Your task to perform on an android device: find snoozed emails in the gmail app Image 0: 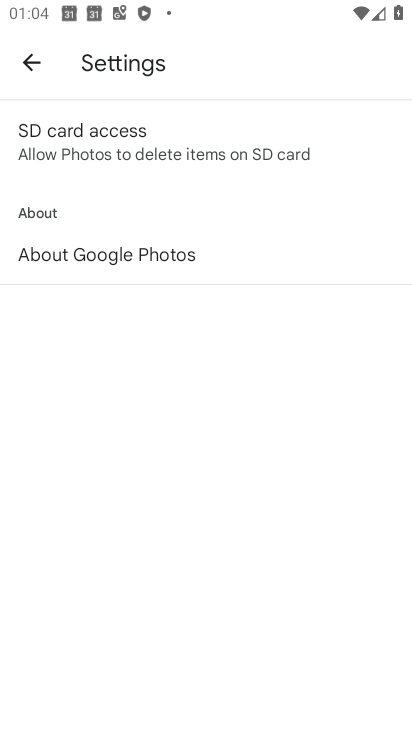
Step 0: press home button
Your task to perform on an android device: find snoozed emails in the gmail app Image 1: 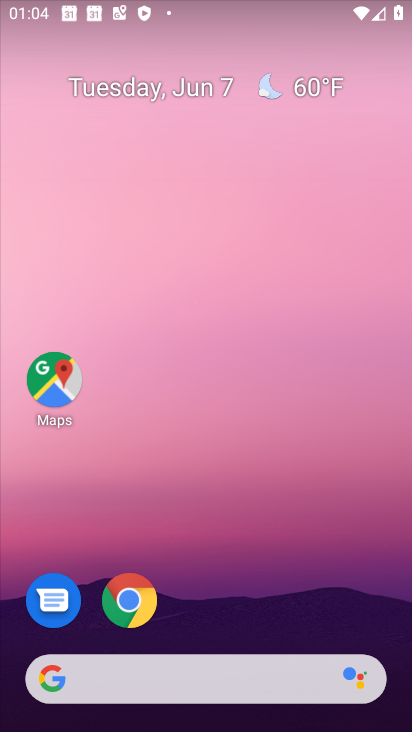
Step 1: drag from (241, 708) to (241, 153)
Your task to perform on an android device: find snoozed emails in the gmail app Image 2: 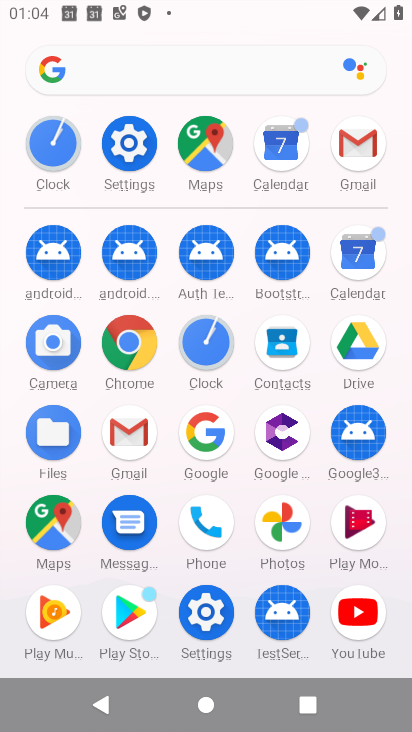
Step 2: click (120, 434)
Your task to perform on an android device: find snoozed emails in the gmail app Image 3: 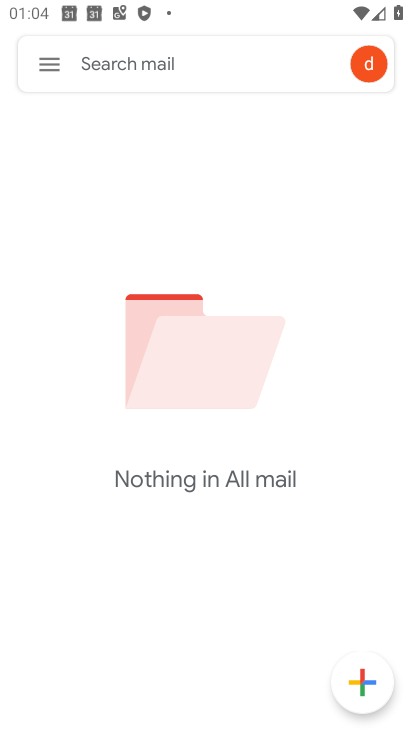
Step 3: click (46, 59)
Your task to perform on an android device: find snoozed emails in the gmail app Image 4: 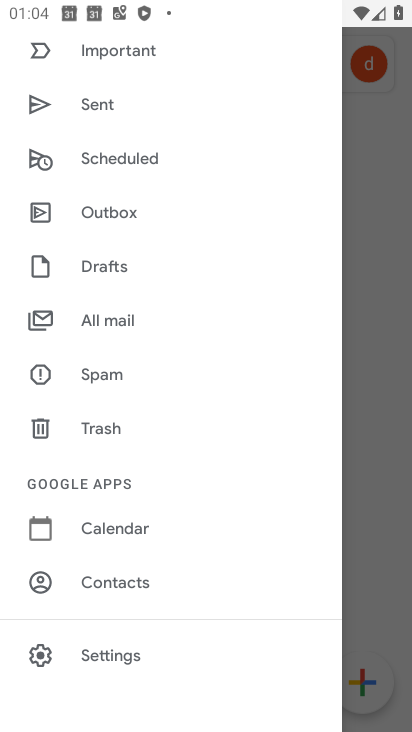
Step 4: drag from (194, 121) to (194, 458)
Your task to perform on an android device: find snoozed emails in the gmail app Image 5: 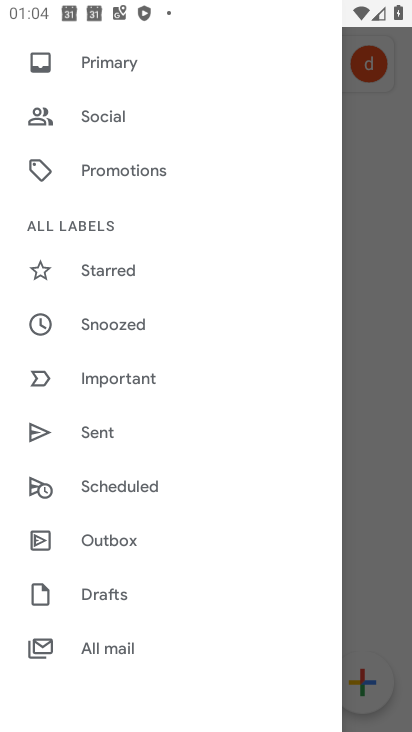
Step 5: click (110, 323)
Your task to perform on an android device: find snoozed emails in the gmail app Image 6: 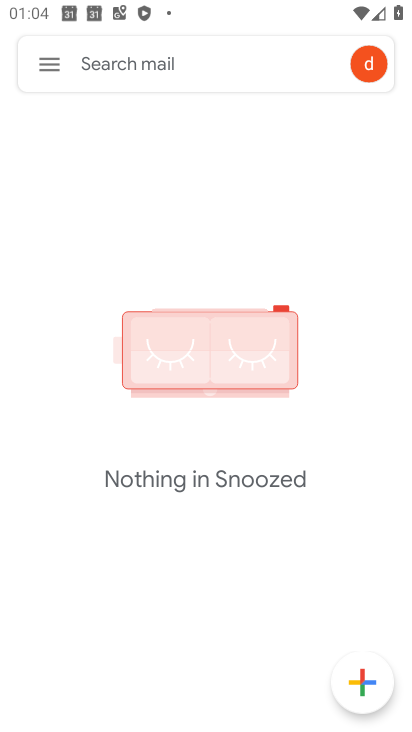
Step 6: task complete